Your task to perform on an android device: What's on my calendar today? Image 0: 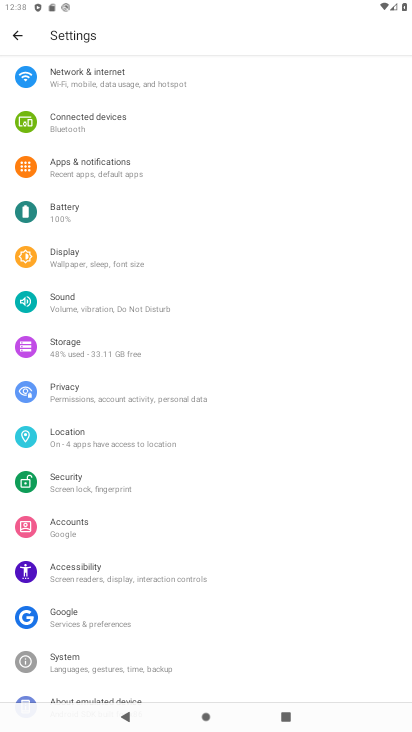
Step 0: click (20, 32)
Your task to perform on an android device: What's on my calendar today? Image 1: 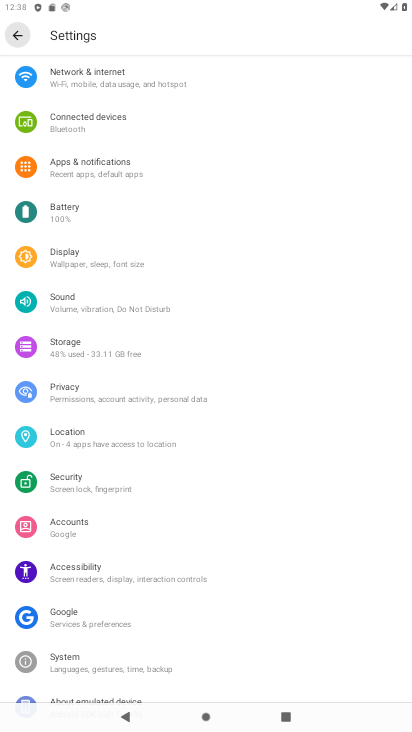
Step 1: click (18, 35)
Your task to perform on an android device: What's on my calendar today? Image 2: 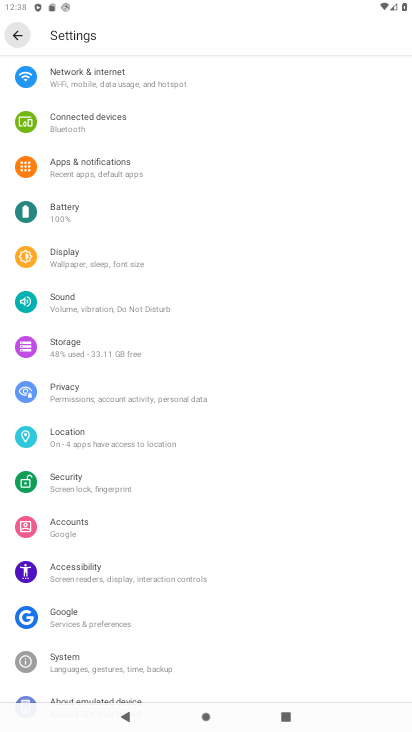
Step 2: press back button
Your task to perform on an android device: What's on my calendar today? Image 3: 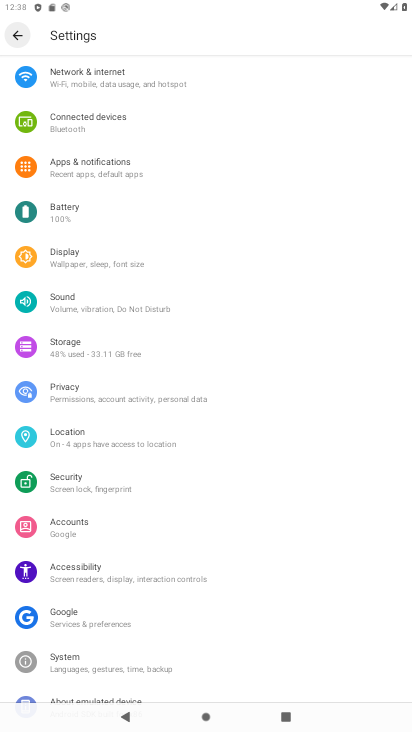
Step 3: press home button
Your task to perform on an android device: What's on my calendar today? Image 4: 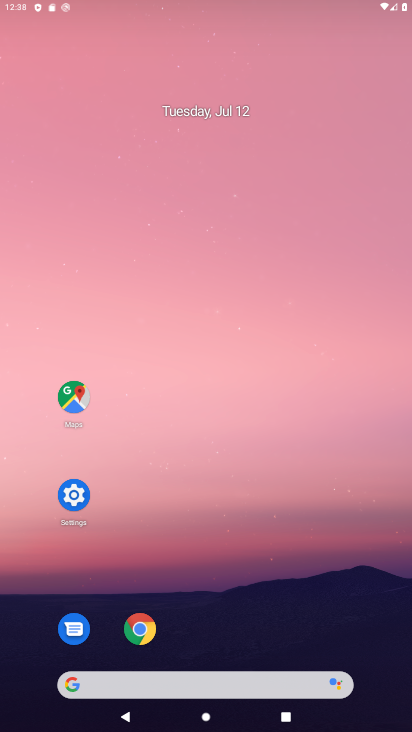
Step 4: click (15, 36)
Your task to perform on an android device: What's on my calendar today? Image 5: 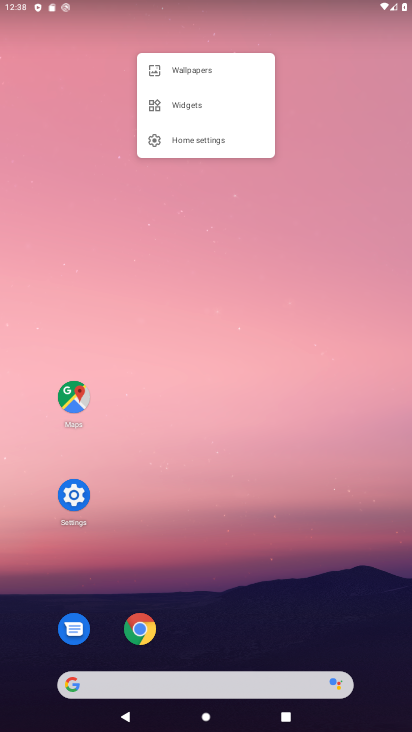
Step 5: drag from (251, 676) to (234, 66)
Your task to perform on an android device: What's on my calendar today? Image 6: 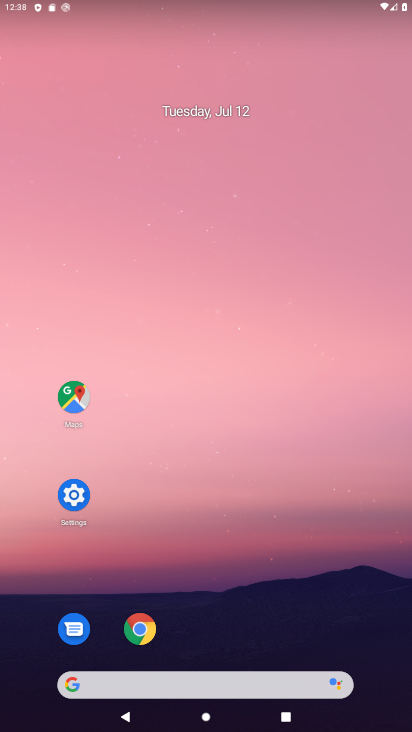
Step 6: drag from (243, 203) to (216, 33)
Your task to perform on an android device: What's on my calendar today? Image 7: 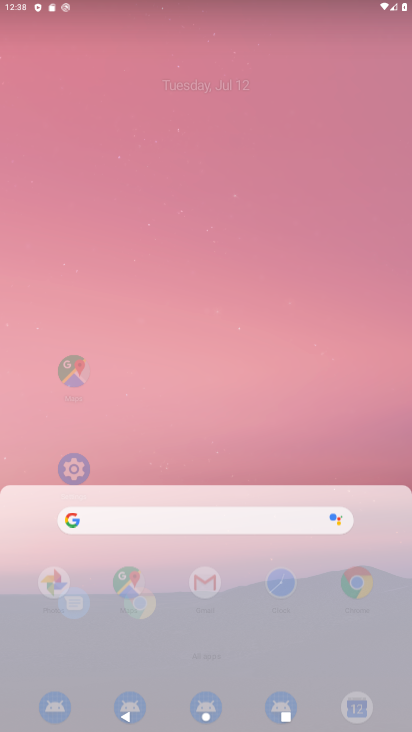
Step 7: drag from (229, 431) to (151, 38)
Your task to perform on an android device: What's on my calendar today? Image 8: 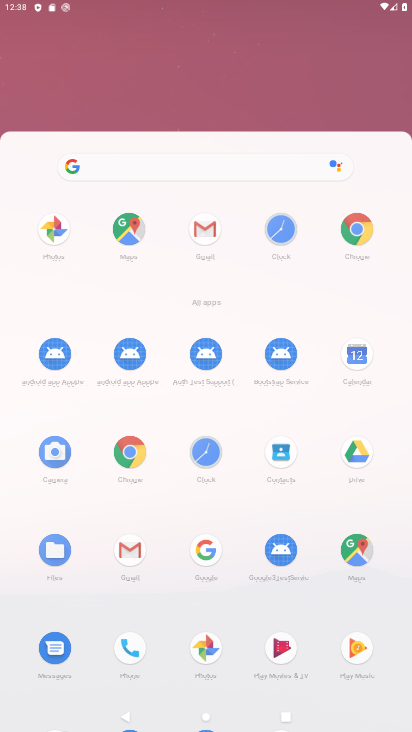
Step 8: click (152, 92)
Your task to perform on an android device: What's on my calendar today? Image 9: 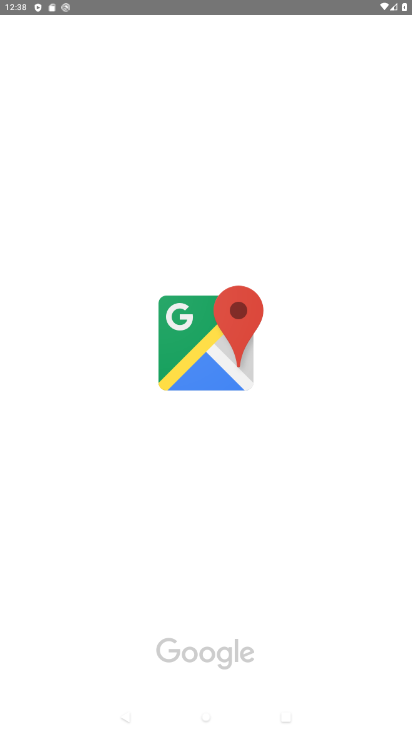
Step 9: drag from (343, 218) to (364, 247)
Your task to perform on an android device: What's on my calendar today? Image 10: 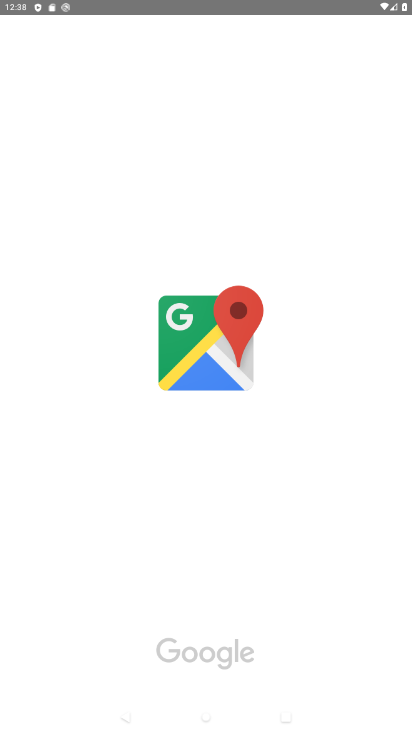
Step 10: press back button
Your task to perform on an android device: What's on my calendar today? Image 11: 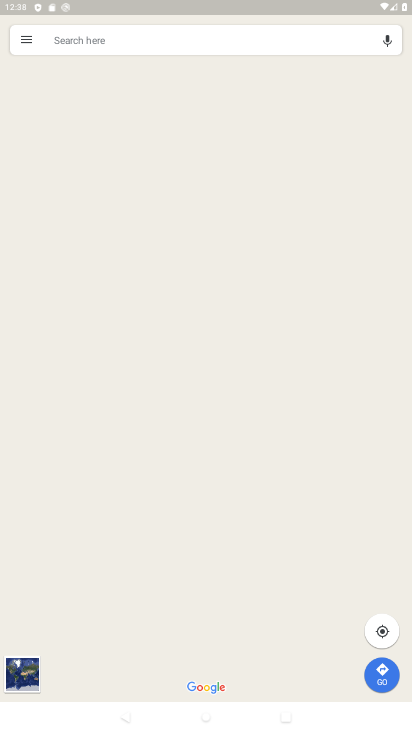
Step 11: press back button
Your task to perform on an android device: What's on my calendar today? Image 12: 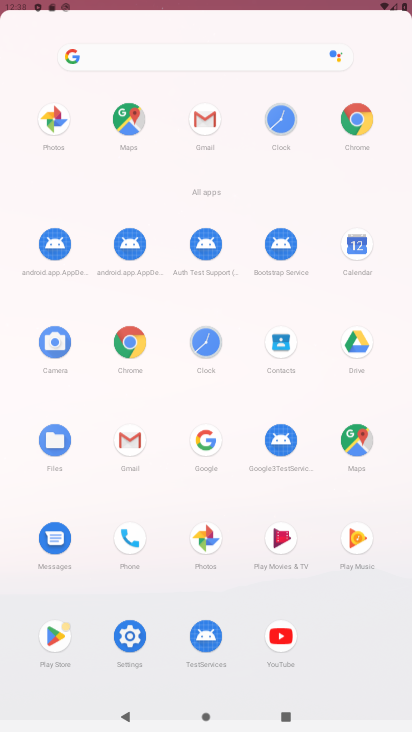
Step 12: press back button
Your task to perform on an android device: What's on my calendar today? Image 13: 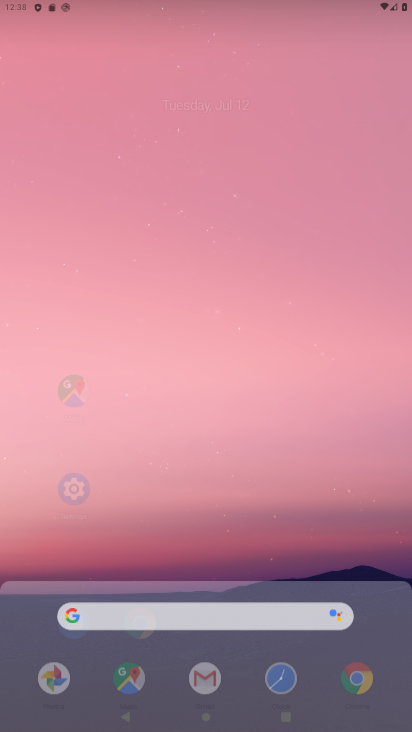
Step 13: press home button
Your task to perform on an android device: What's on my calendar today? Image 14: 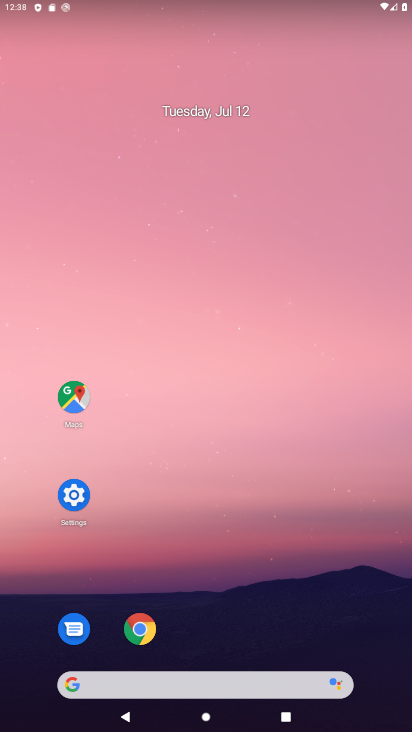
Step 14: press home button
Your task to perform on an android device: What's on my calendar today? Image 15: 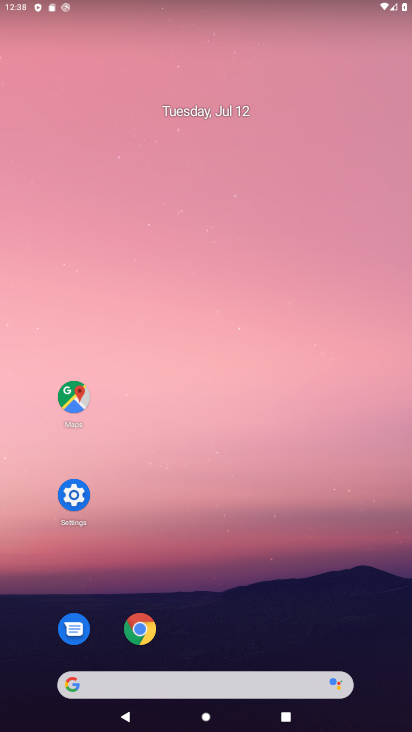
Step 15: drag from (256, 669) to (99, 11)
Your task to perform on an android device: What's on my calendar today? Image 16: 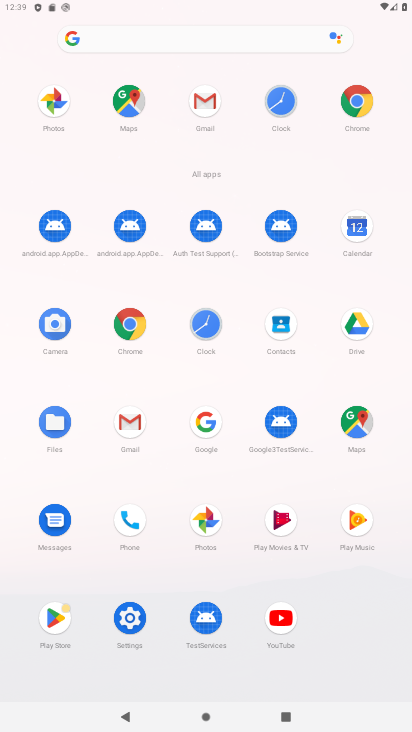
Step 16: click (353, 227)
Your task to perform on an android device: What's on my calendar today? Image 17: 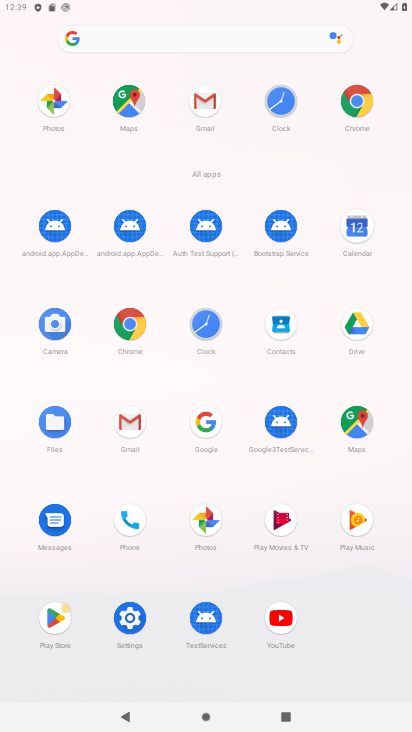
Step 17: click (357, 230)
Your task to perform on an android device: What's on my calendar today? Image 18: 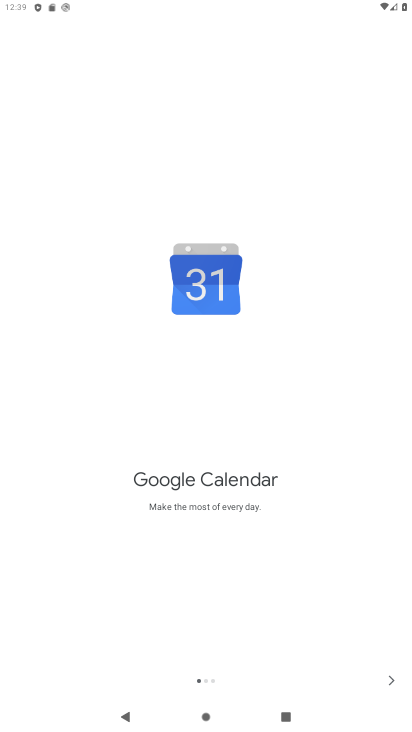
Step 18: click (393, 676)
Your task to perform on an android device: What's on my calendar today? Image 19: 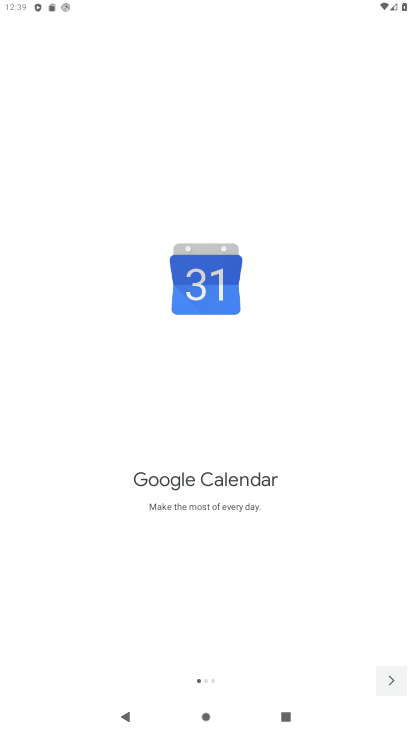
Step 19: click (394, 674)
Your task to perform on an android device: What's on my calendar today? Image 20: 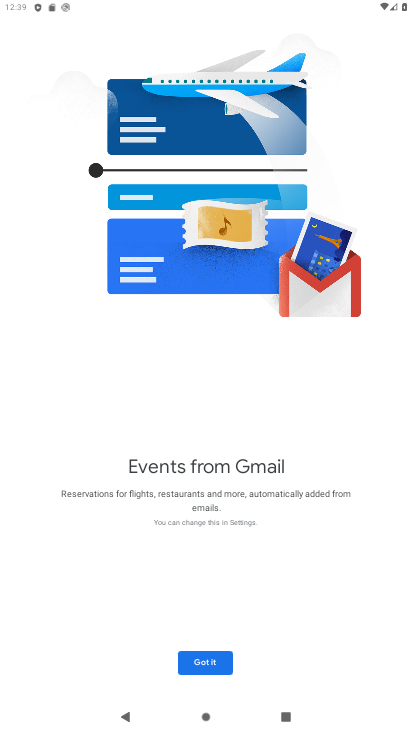
Step 20: click (233, 655)
Your task to perform on an android device: What's on my calendar today? Image 21: 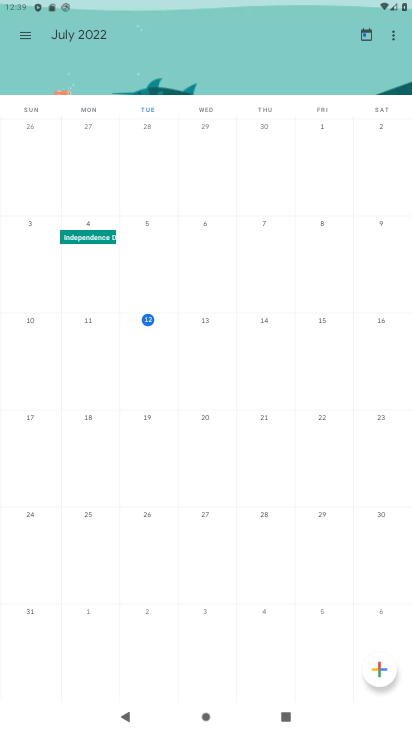
Step 21: click (149, 319)
Your task to perform on an android device: What's on my calendar today? Image 22: 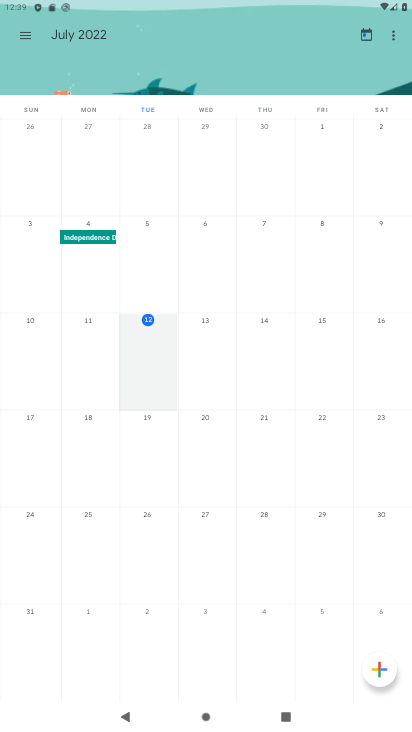
Step 22: click (149, 316)
Your task to perform on an android device: What's on my calendar today? Image 23: 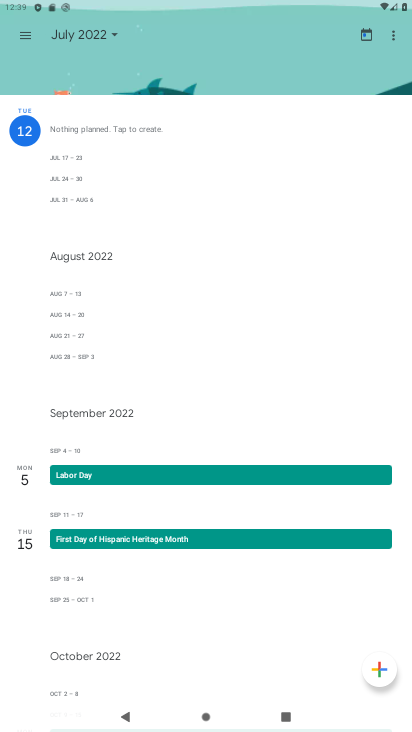
Step 23: task complete